Your task to perform on an android device: Go to Yahoo.com Image 0: 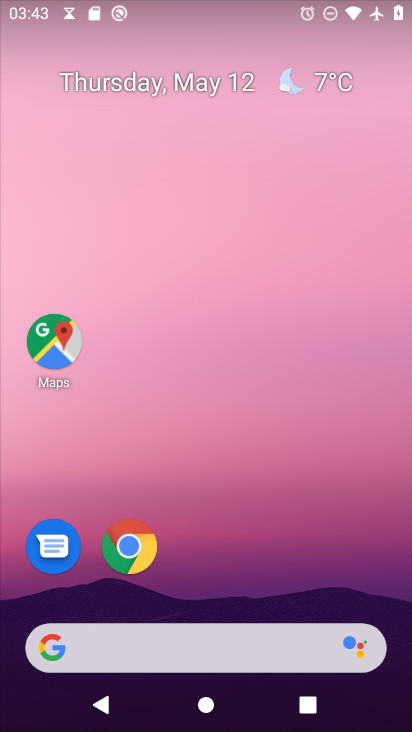
Step 0: drag from (178, 660) to (310, 147)
Your task to perform on an android device: Go to Yahoo.com Image 1: 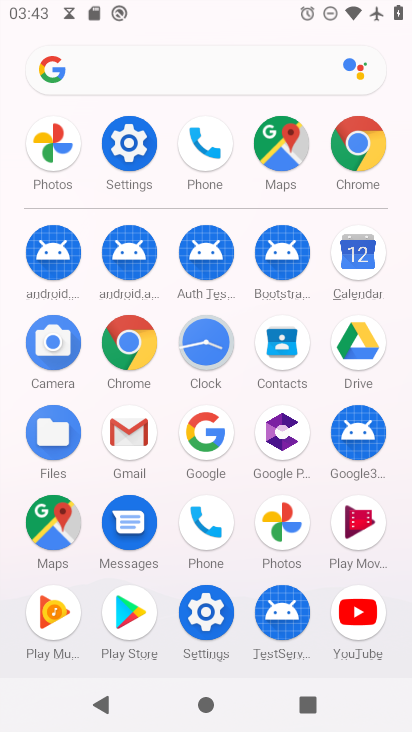
Step 1: click (354, 159)
Your task to perform on an android device: Go to Yahoo.com Image 2: 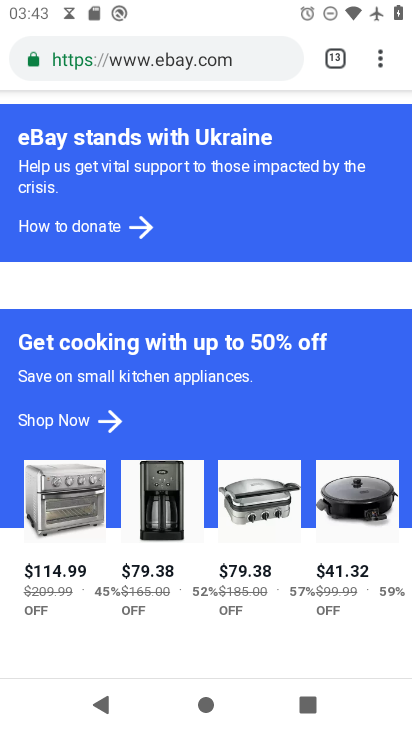
Step 2: drag from (377, 59) to (288, 117)
Your task to perform on an android device: Go to Yahoo.com Image 3: 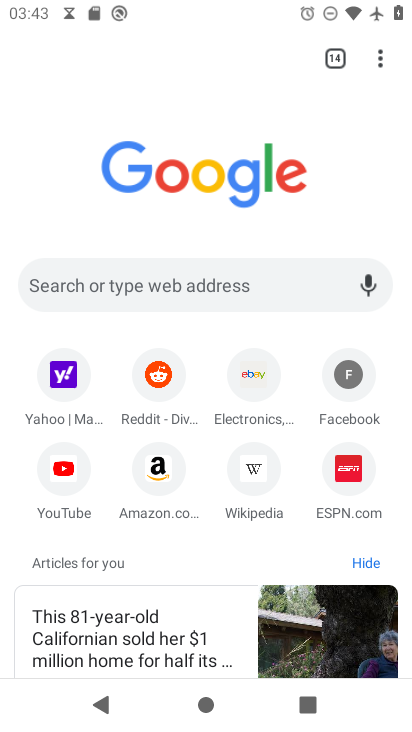
Step 3: click (61, 379)
Your task to perform on an android device: Go to Yahoo.com Image 4: 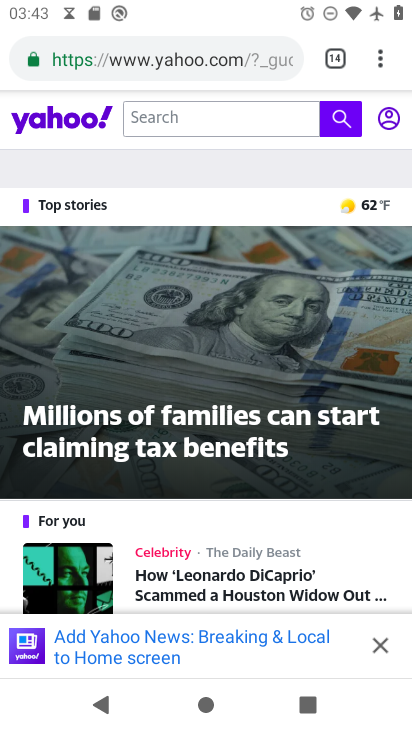
Step 4: task complete